Your task to perform on an android device: Open wifi settings Image 0: 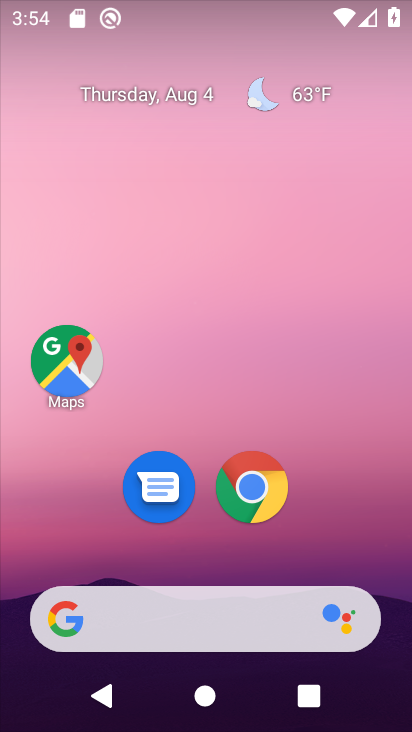
Step 0: drag from (129, 4) to (148, 483)
Your task to perform on an android device: Open wifi settings Image 1: 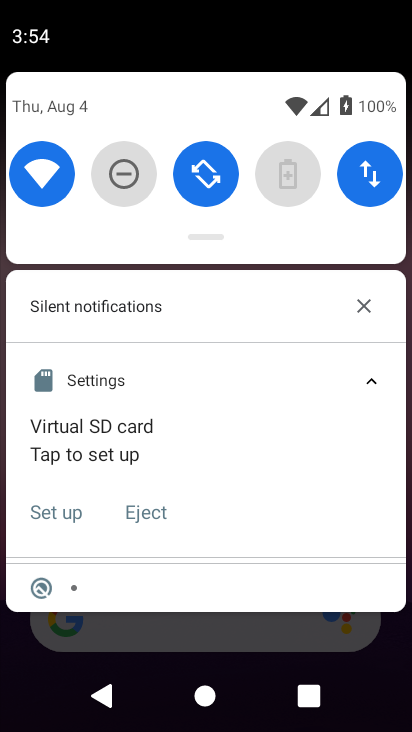
Step 1: click (40, 163)
Your task to perform on an android device: Open wifi settings Image 2: 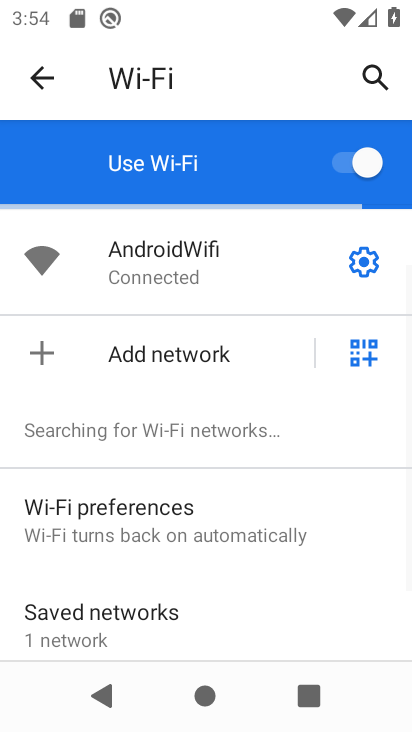
Step 2: task complete